Your task to perform on an android device: Search for sushi restaurants on Maps Image 0: 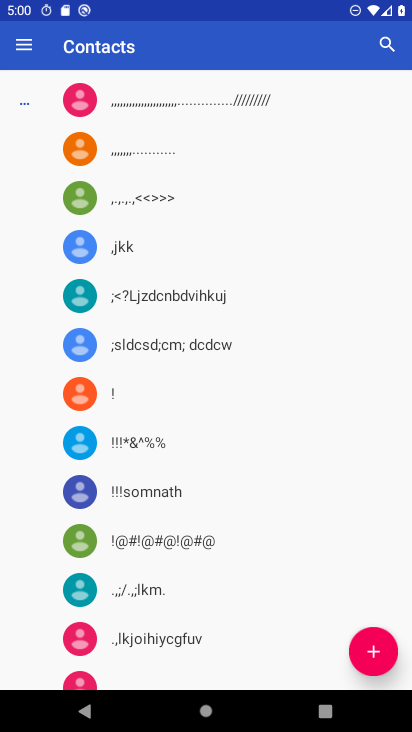
Step 0: press home button
Your task to perform on an android device: Search for sushi restaurants on Maps Image 1: 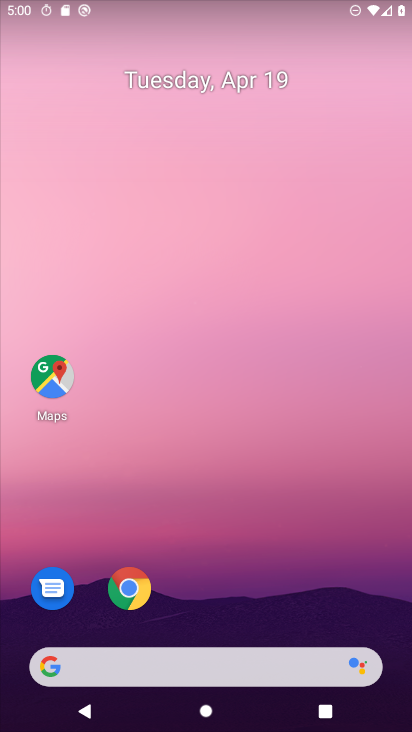
Step 1: click (55, 382)
Your task to perform on an android device: Search for sushi restaurants on Maps Image 2: 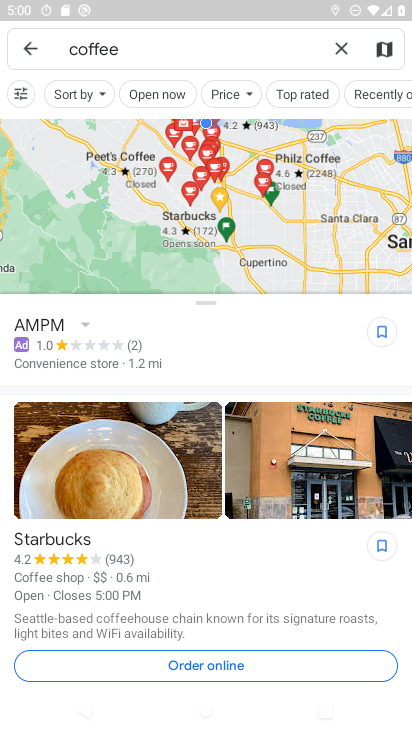
Step 2: click (331, 47)
Your task to perform on an android device: Search for sushi restaurants on Maps Image 3: 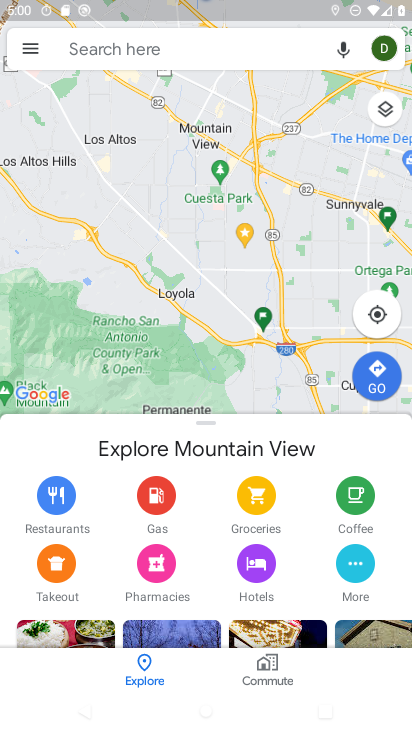
Step 3: click (210, 48)
Your task to perform on an android device: Search for sushi restaurants on Maps Image 4: 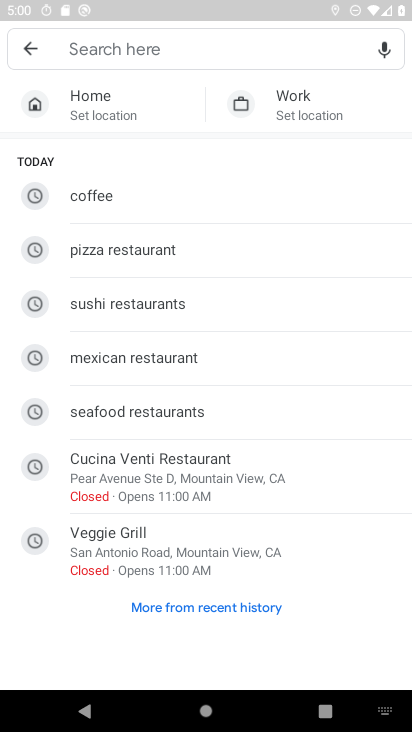
Step 4: click (125, 301)
Your task to perform on an android device: Search for sushi restaurants on Maps Image 5: 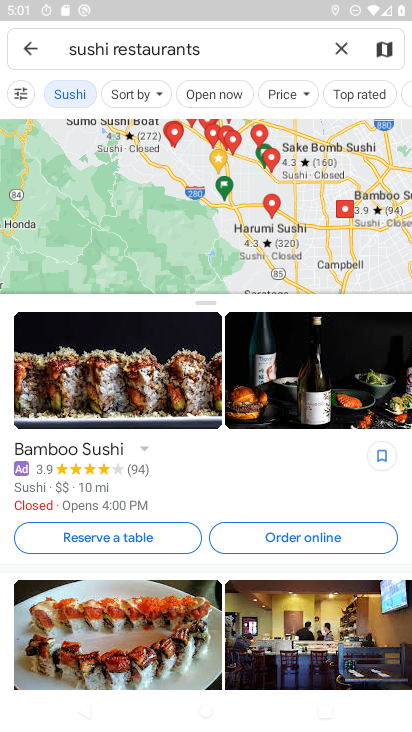
Step 5: task complete